Your task to perform on an android device: Open eBay Image 0: 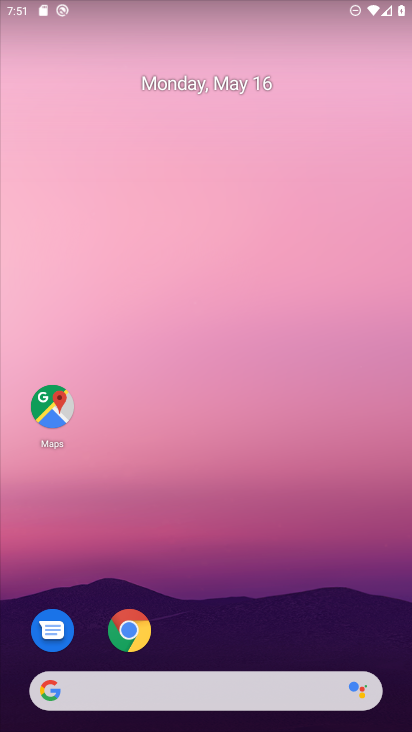
Step 0: drag from (264, 578) to (230, 68)
Your task to perform on an android device: Open eBay Image 1: 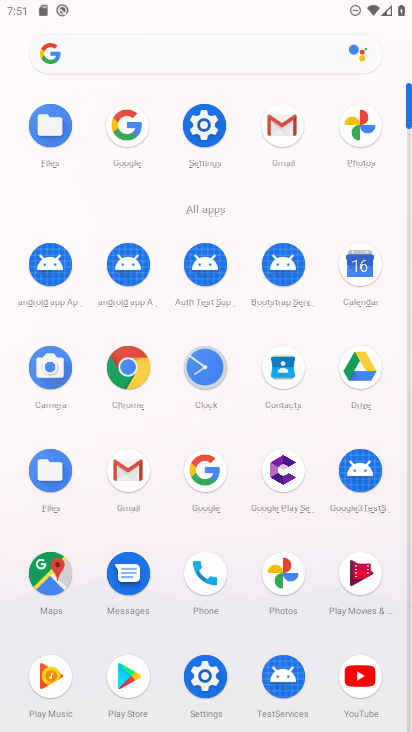
Step 1: click (119, 365)
Your task to perform on an android device: Open eBay Image 2: 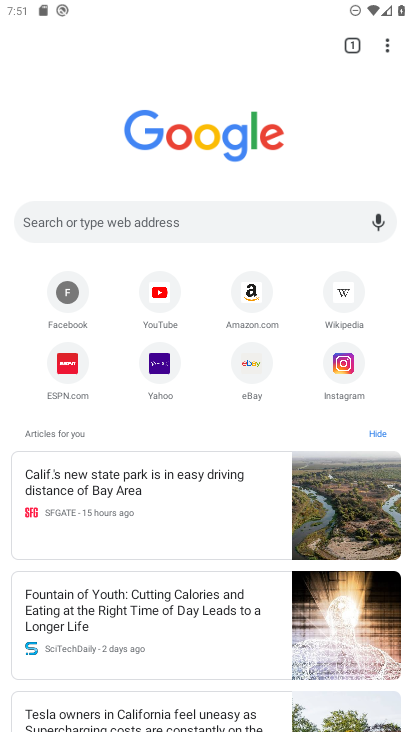
Step 2: click (260, 359)
Your task to perform on an android device: Open eBay Image 3: 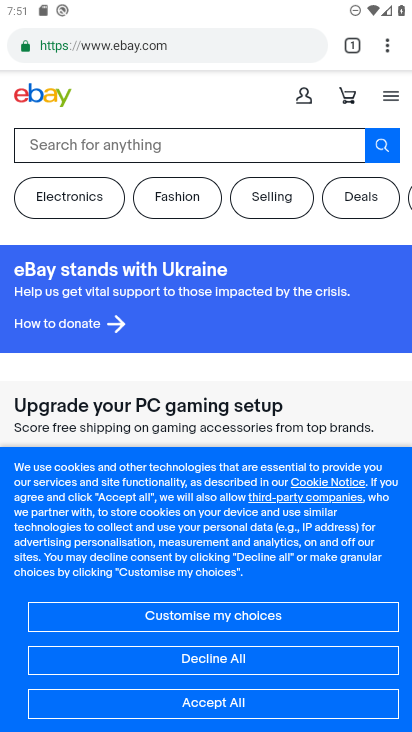
Step 3: task complete